Your task to perform on an android device: Go to Google maps Image 0: 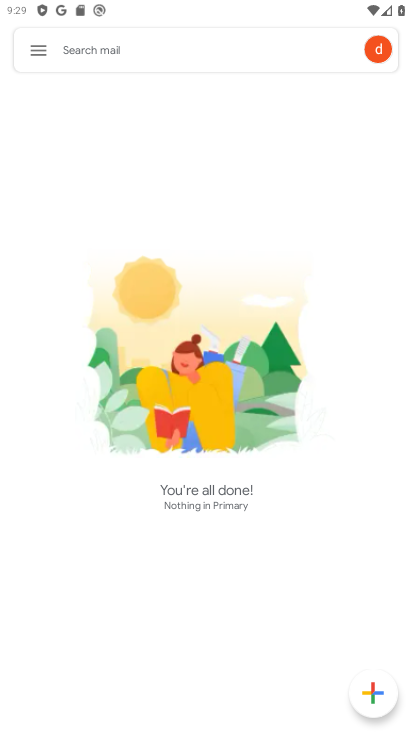
Step 0: press home button
Your task to perform on an android device: Go to Google maps Image 1: 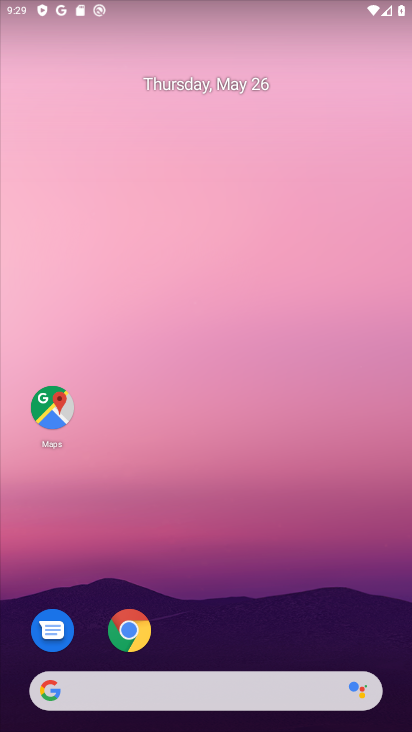
Step 1: click (61, 414)
Your task to perform on an android device: Go to Google maps Image 2: 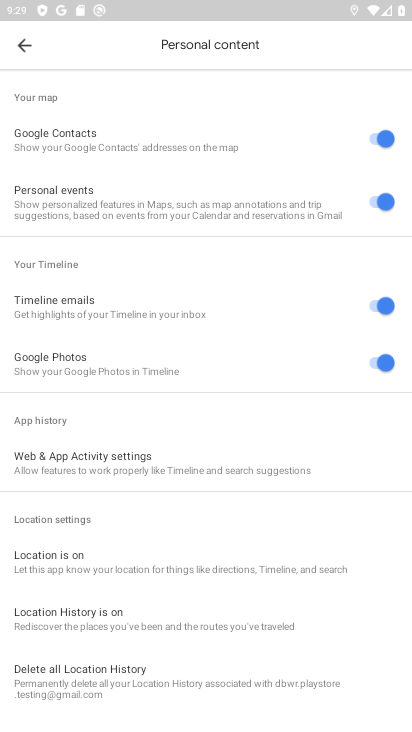
Step 2: click (21, 49)
Your task to perform on an android device: Go to Google maps Image 3: 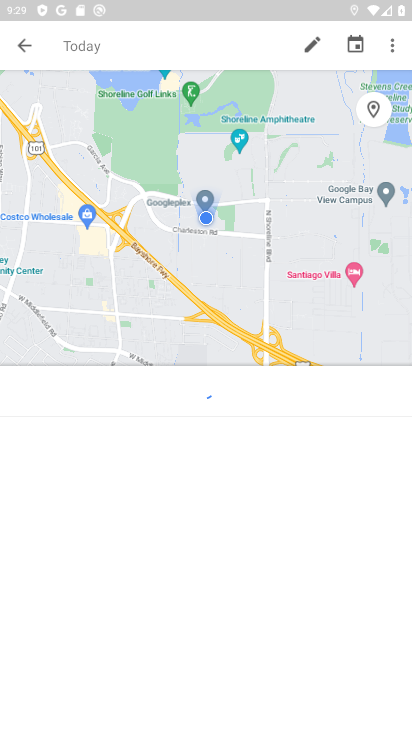
Step 3: click (21, 49)
Your task to perform on an android device: Go to Google maps Image 4: 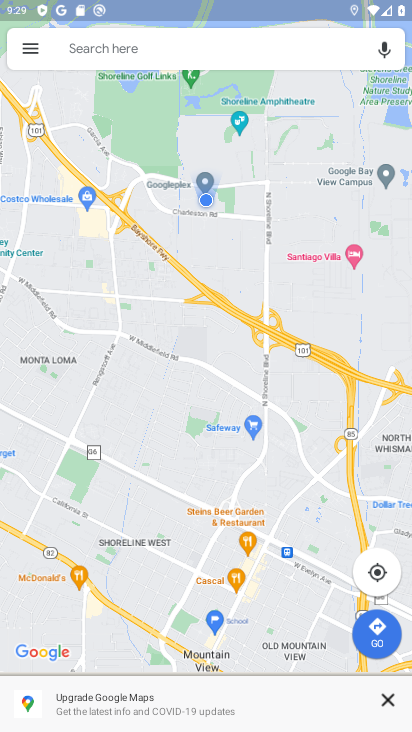
Step 4: task complete